Your task to perform on an android device: Open Google Chrome and click the shortcut for Amazon.com Image 0: 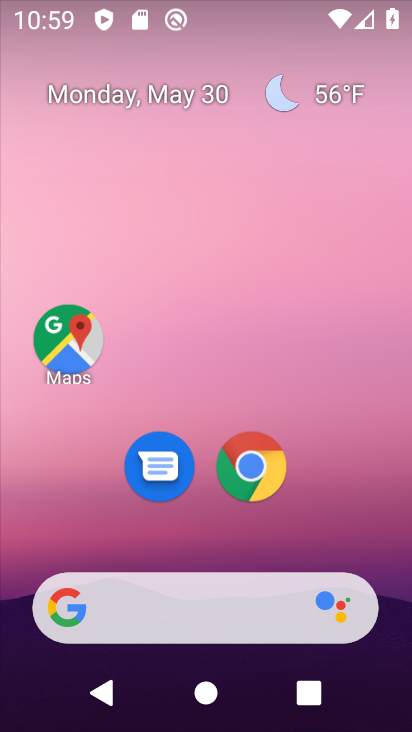
Step 0: click (265, 455)
Your task to perform on an android device: Open Google Chrome and click the shortcut for Amazon.com Image 1: 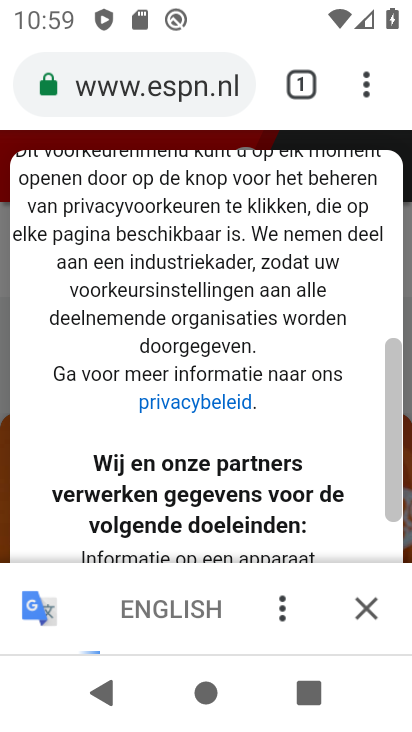
Step 1: click (296, 75)
Your task to perform on an android device: Open Google Chrome and click the shortcut for Amazon.com Image 2: 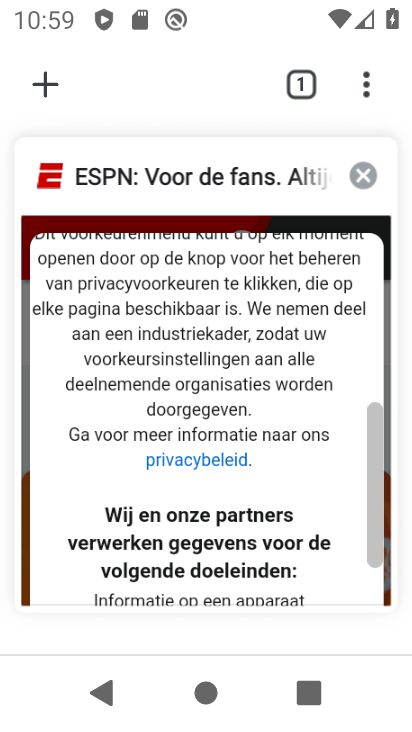
Step 2: click (361, 182)
Your task to perform on an android device: Open Google Chrome and click the shortcut for Amazon.com Image 3: 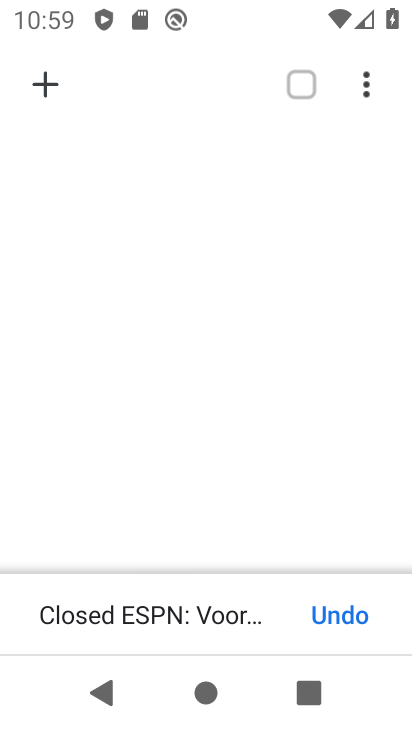
Step 3: click (46, 93)
Your task to perform on an android device: Open Google Chrome and click the shortcut for Amazon.com Image 4: 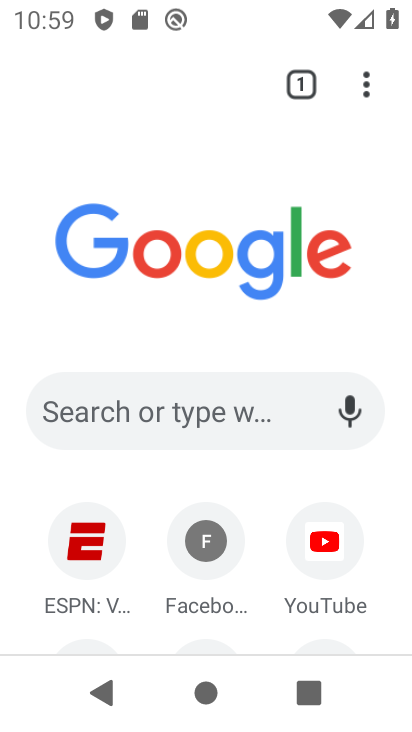
Step 4: drag from (136, 230) to (166, 293)
Your task to perform on an android device: Open Google Chrome and click the shortcut for Amazon.com Image 5: 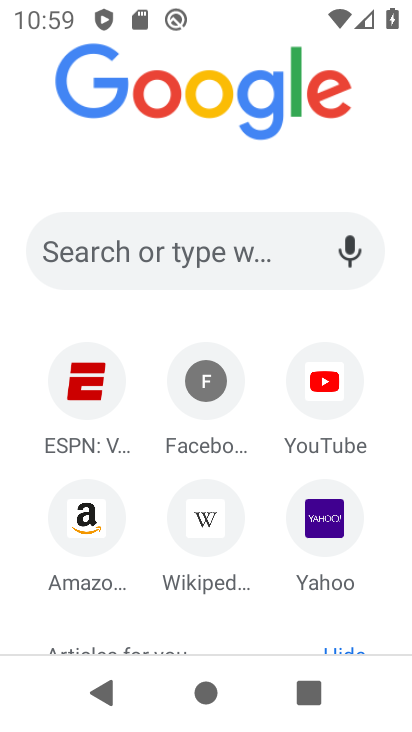
Step 5: click (79, 516)
Your task to perform on an android device: Open Google Chrome and click the shortcut for Amazon.com Image 6: 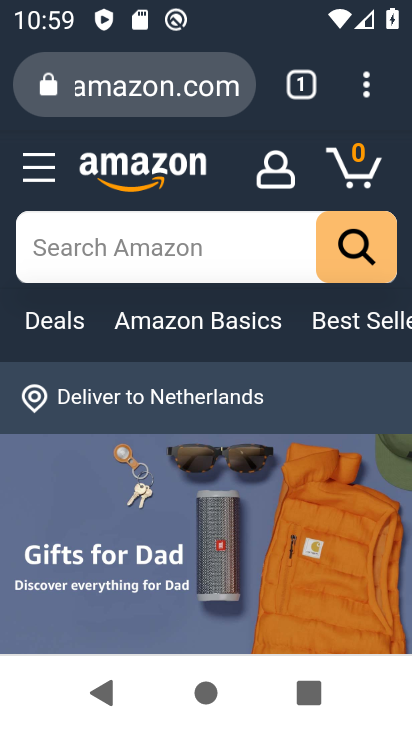
Step 6: task complete